Your task to perform on an android device: turn on data saver in the chrome app Image 0: 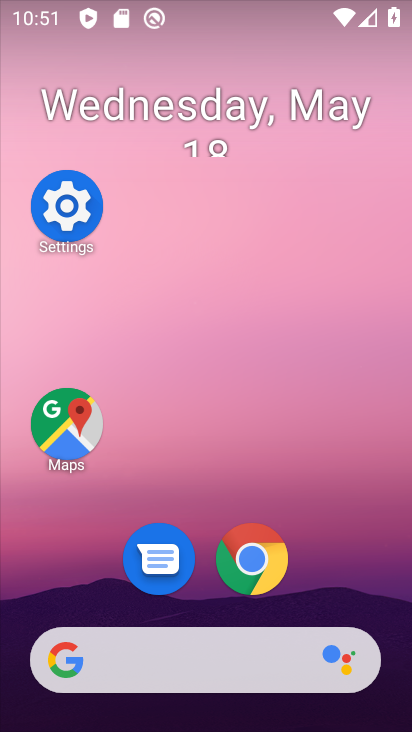
Step 0: click (260, 557)
Your task to perform on an android device: turn on data saver in the chrome app Image 1: 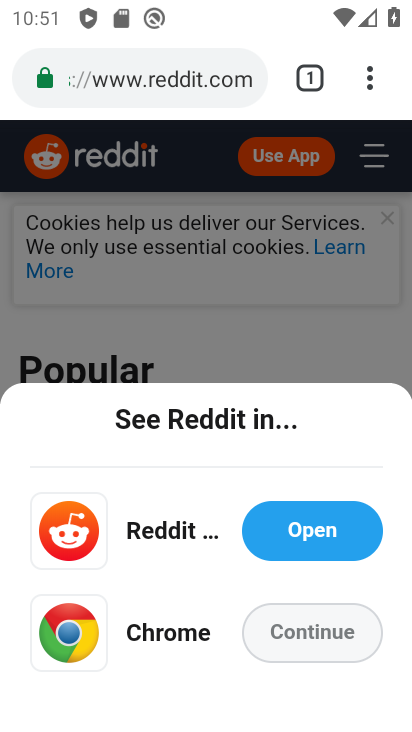
Step 1: click (382, 73)
Your task to perform on an android device: turn on data saver in the chrome app Image 2: 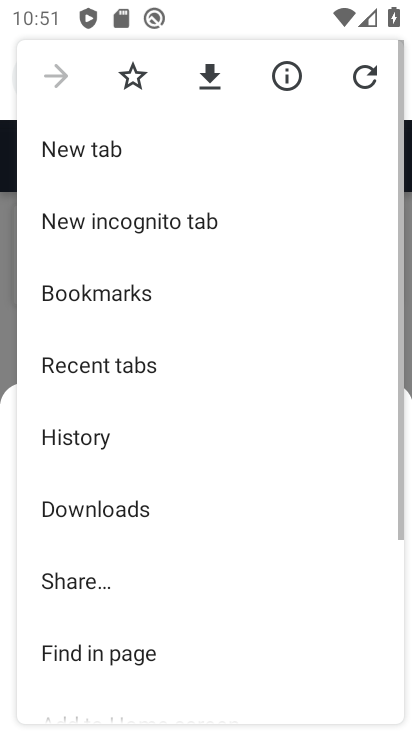
Step 2: drag from (226, 546) to (300, 128)
Your task to perform on an android device: turn on data saver in the chrome app Image 3: 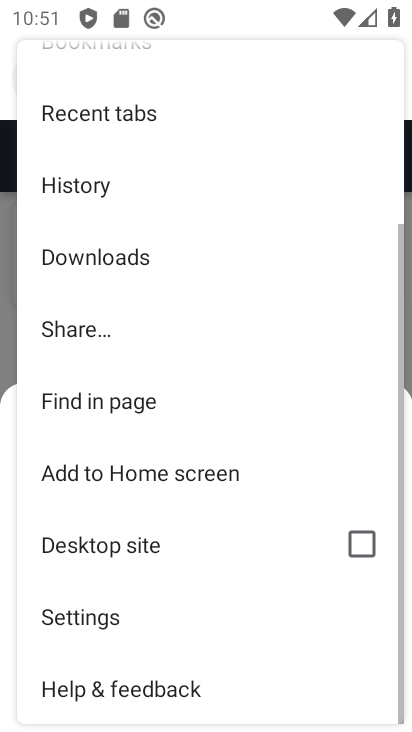
Step 3: click (150, 595)
Your task to perform on an android device: turn on data saver in the chrome app Image 4: 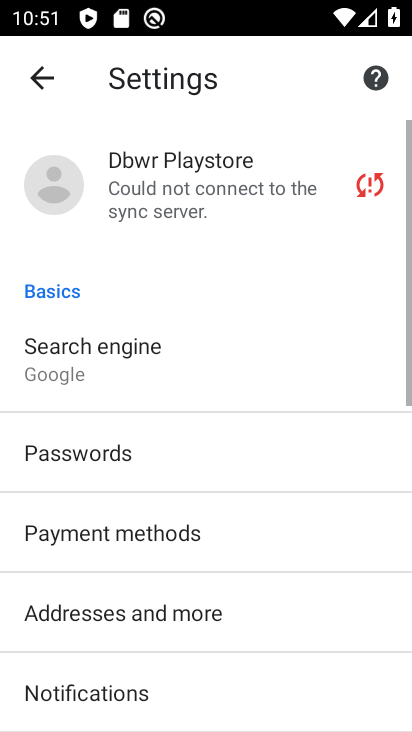
Step 4: drag from (150, 595) to (210, 166)
Your task to perform on an android device: turn on data saver in the chrome app Image 5: 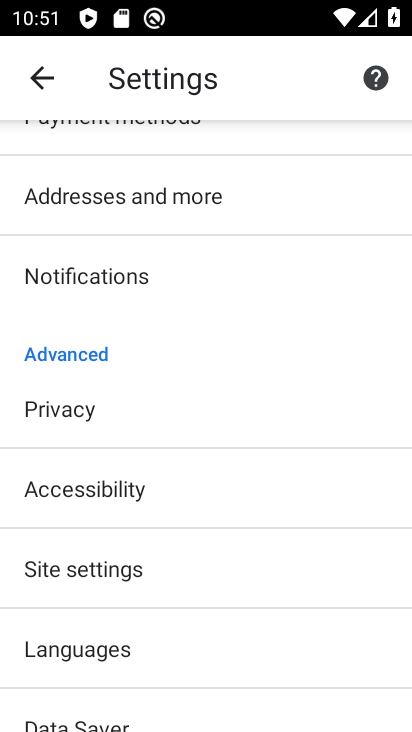
Step 5: drag from (173, 660) to (251, 313)
Your task to perform on an android device: turn on data saver in the chrome app Image 6: 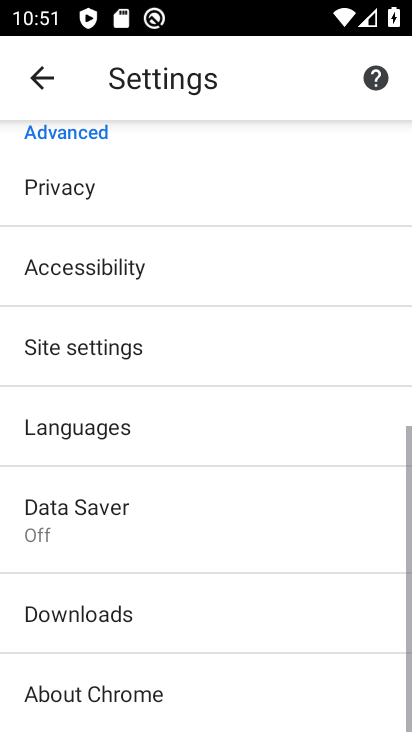
Step 6: click (171, 523)
Your task to perform on an android device: turn on data saver in the chrome app Image 7: 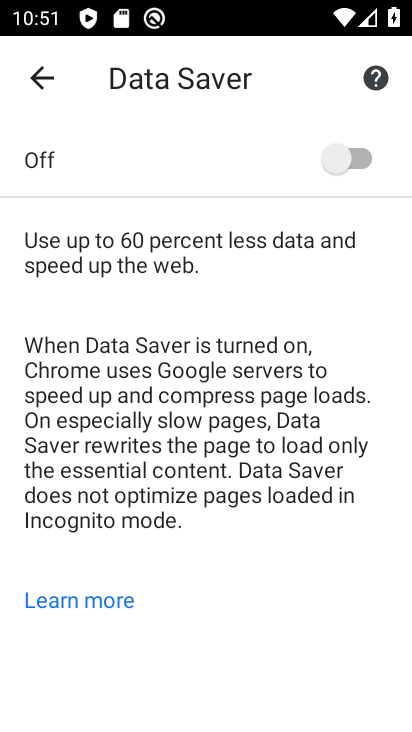
Step 7: click (343, 158)
Your task to perform on an android device: turn on data saver in the chrome app Image 8: 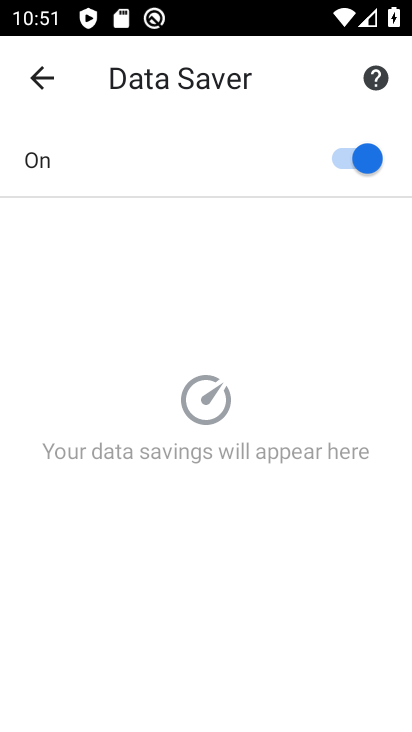
Step 8: task complete